Your task to perform on an android device: open chrome and create a bookmark for the current page Image 0: 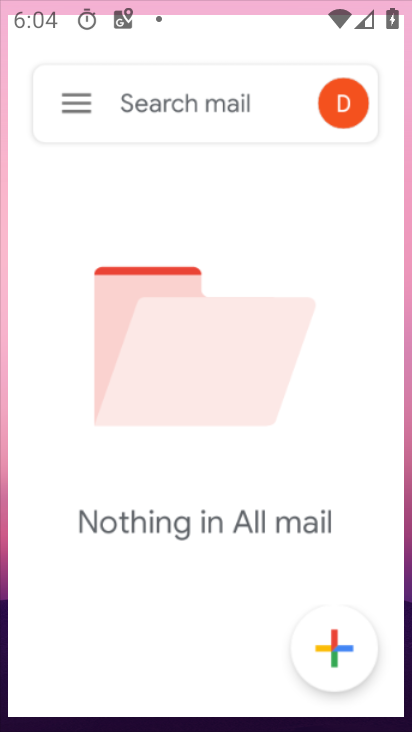
Step 0: drag from (270, 542) to (190, 16)
Your task to perform on an android device: open chrome and create a bookmark for the current page Image 1: 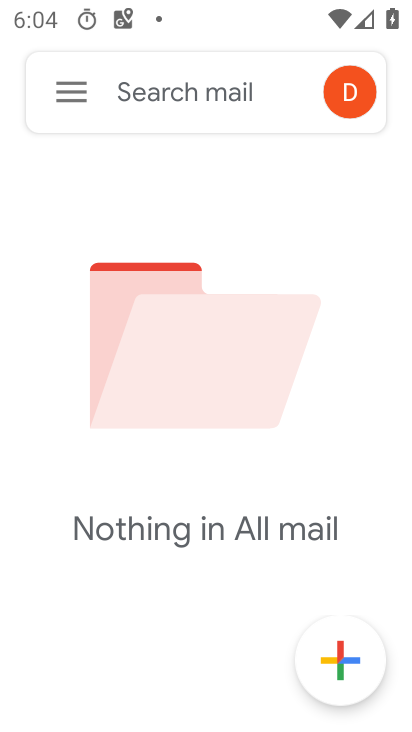
Step 1: press home button
Your task to perform on an android device: open chrome and create a bookmark for the current page Image 2: 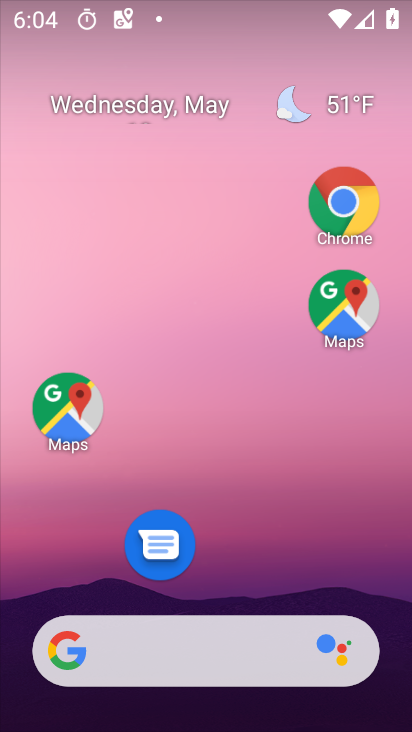
Step 2: click (351, 192)
Your task to perform on an android device: open chrome and create a bookmark for the current page Image 3: 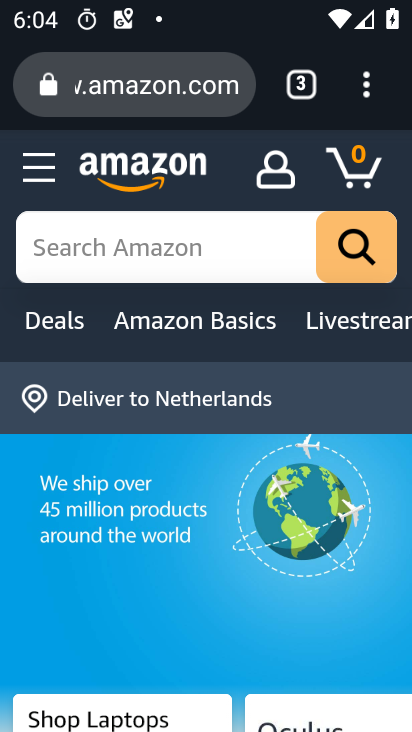
Step 3: click (373, 76)
Your task to perform on an android device: open chrome and create a bookmark for the current page Image 4: 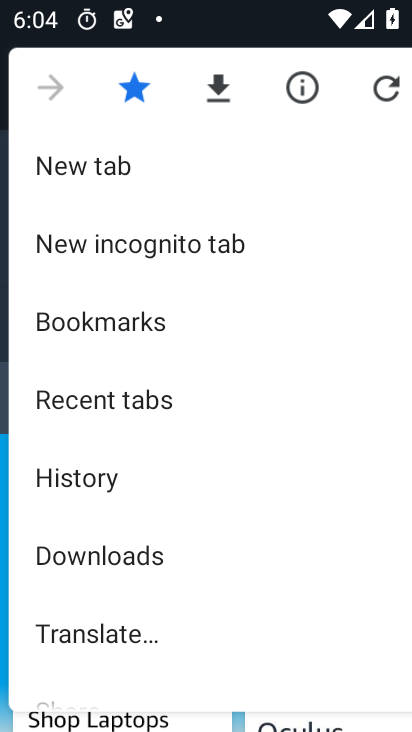
Step 4: task complete